Your task to perform on an android device: see creations saved in the google photos Image 0: 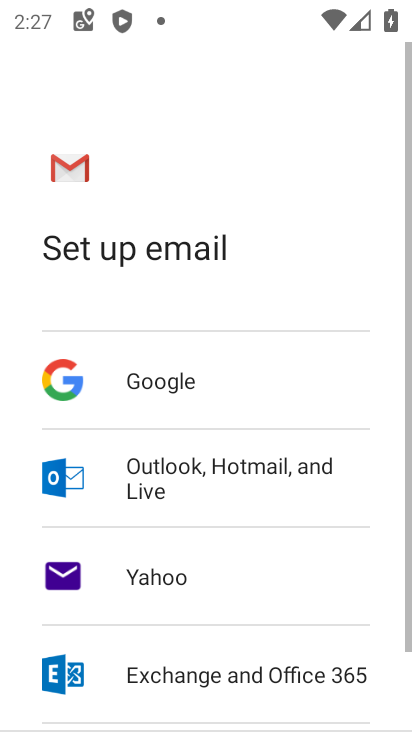
Step 0: press home button
Your task to perform on an android device: see creations saved in the google photos Image 1: 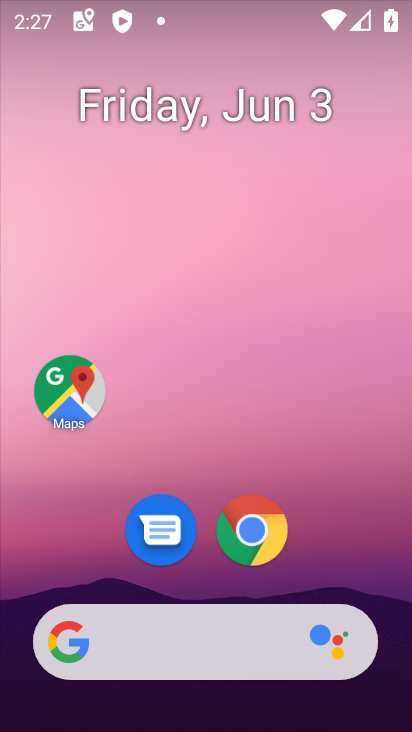
Step 1: drag from (343, 531) to (245, 181)
Your task to perform on an android device: see creations saved in the google photos Image 2: 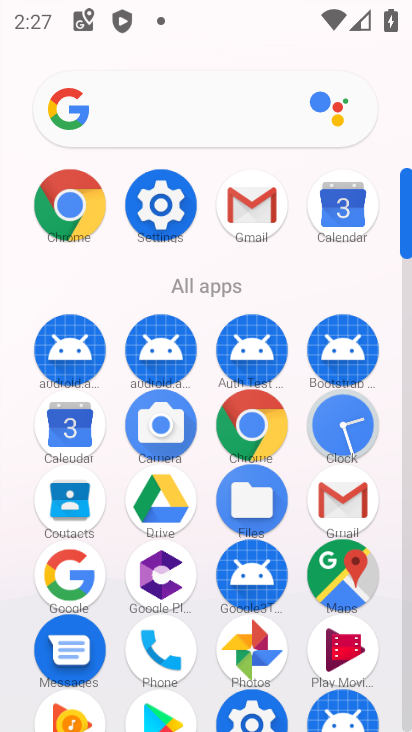
Step 2: click (252, 650)
Your task to perform on an android device: see creations saved in the google photos Image 3: 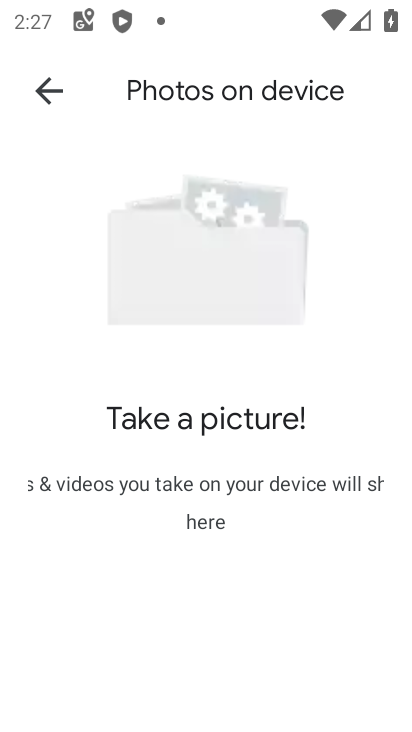
Step 3: click (48, 90)
Your task to perform on an android device: see creations saved in the google photos Image 4: 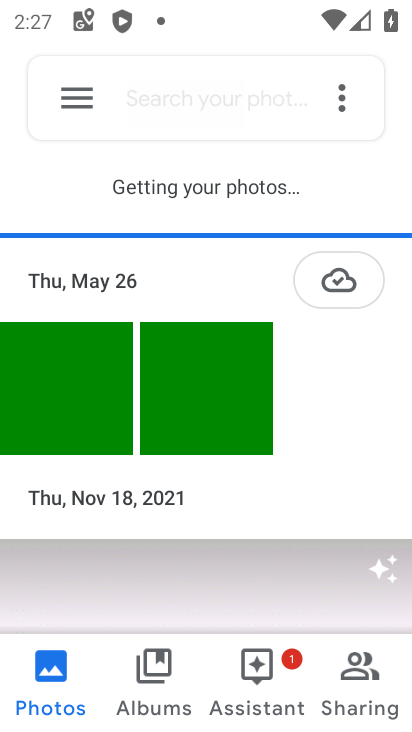
Step 4: click (194, 86)
Your task to perform on an android device: see creations saved in the google photos Image 5: 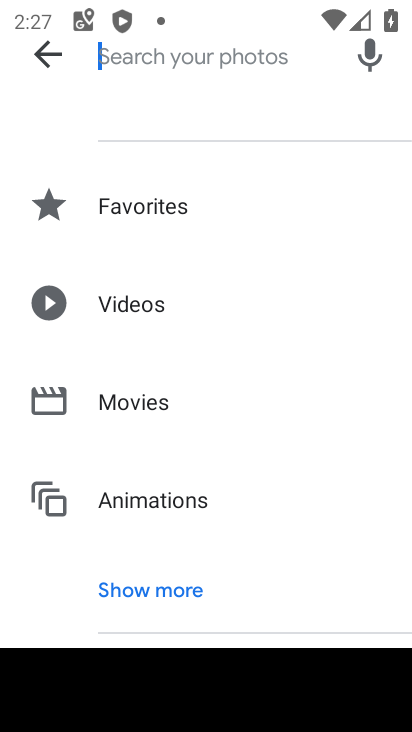
Step 5: click (113, 598)
Your task to perform on an android device: see creations saved in the google photos Image 6: 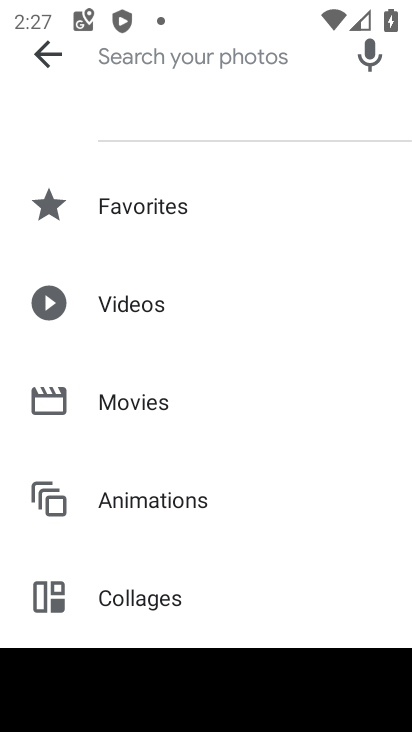
Step 6: drag from (182, 469) to (165, 346)
Your task to perform on an android device: see creations saved in the google photos Image 7: 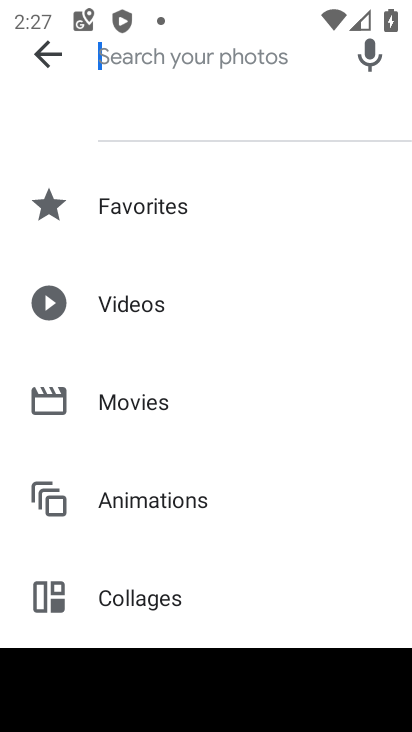
Step 7: drag from (191, 516) to (192, 277)
Your task to perform on an android device: see creations saved in the google photos Image 8: 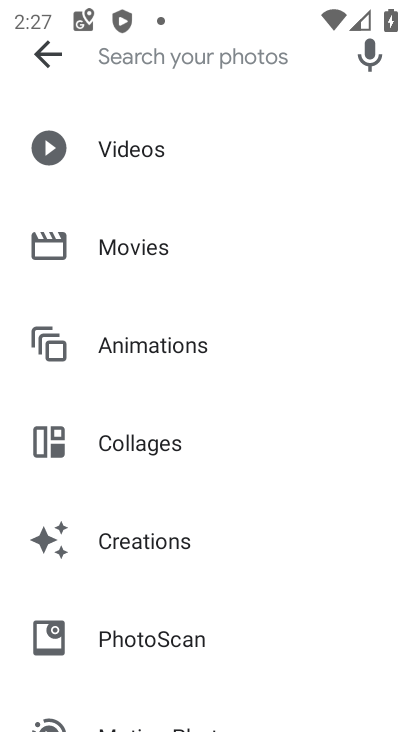
Step 8: click (160, 540)
Your task to perform on an android device: see creations saved in the google photos Image 9: 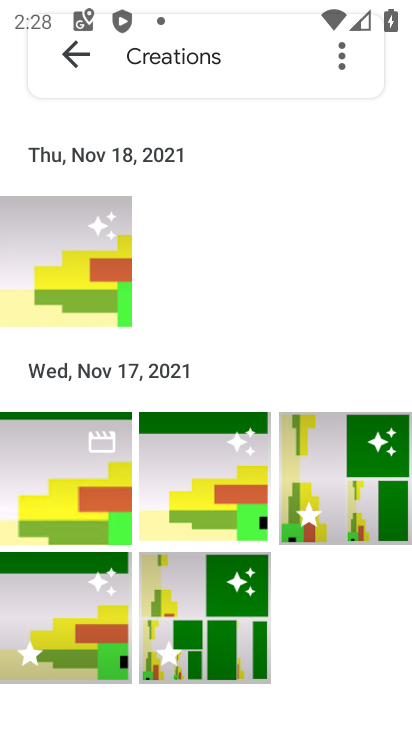
Step 9: task complete